Your task to perform on an android device: Open Chrome and go to the settings page Image 0: 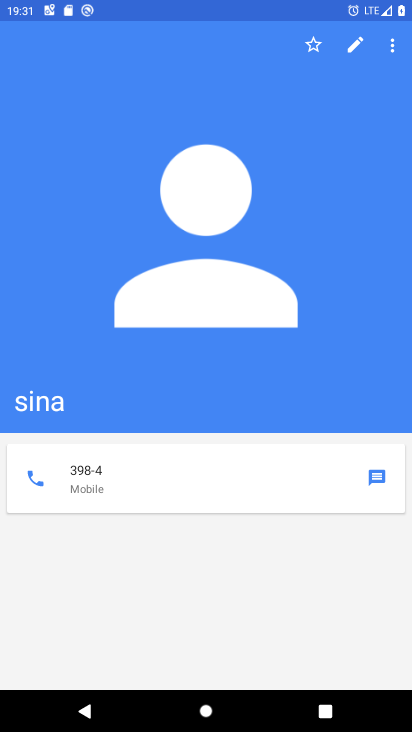
Step 0: press home button
Your task to perform on an android device: Open Chrome and go to the settings page Image 1: 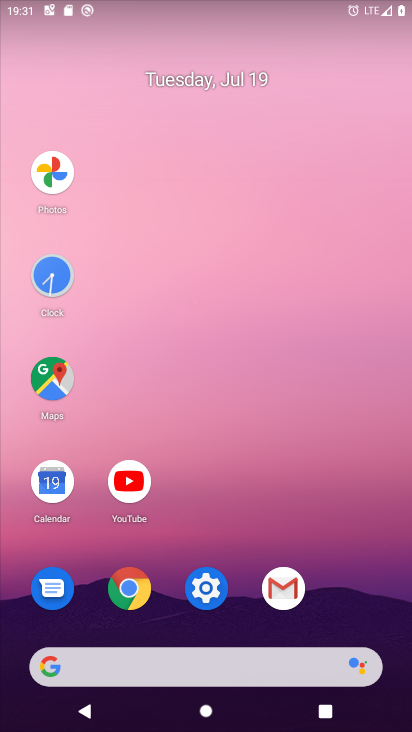
Step 1: click (124, 587)
Your task to perform on an android device: Open Chrome and go to the settings page Image 2: 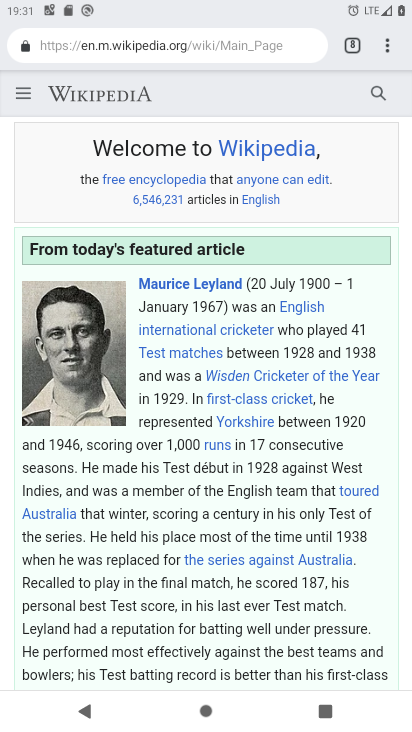
Step 2: click (385, 42)
Your task to perform on an android device: Open Chrome and go to the settings page Image 3: 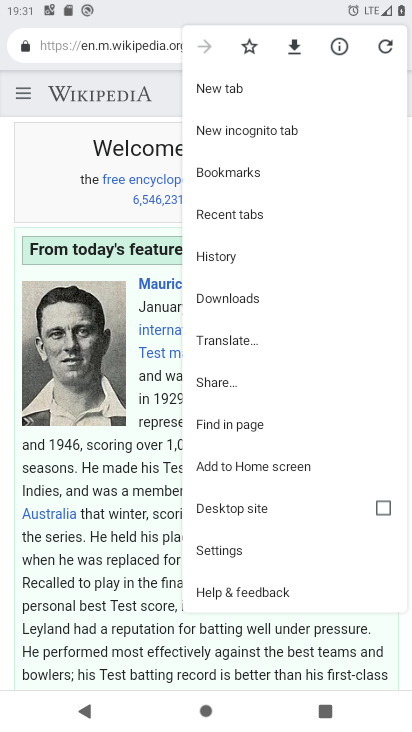
Step 3: click (223, 546)
Your task to perform on an android device: Open Chrome and go to the settings page Image 4: 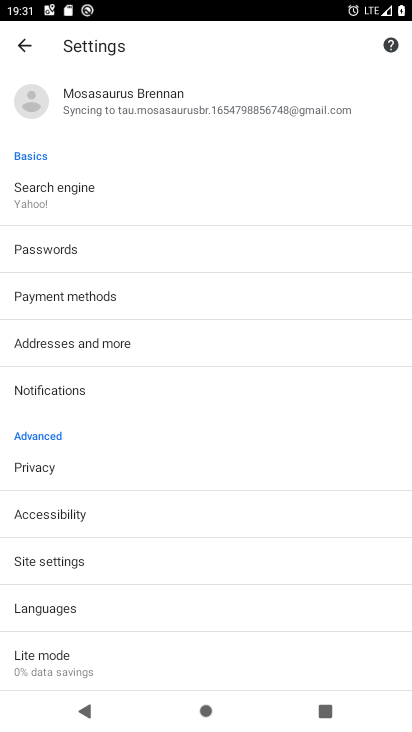
Step 4: task complete